Your task to perform on an android device: Search for Italian restaurants on Maps Image 0: 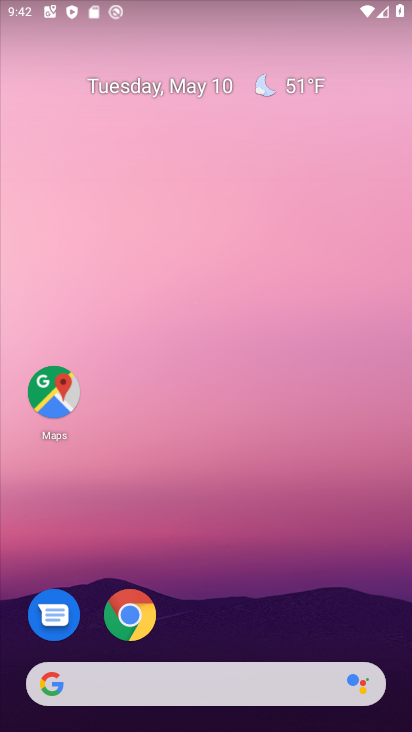
Step 0: click (43, 381)
Your task to perform on an android device: Search for Italian restaurants on Maps Image 1: 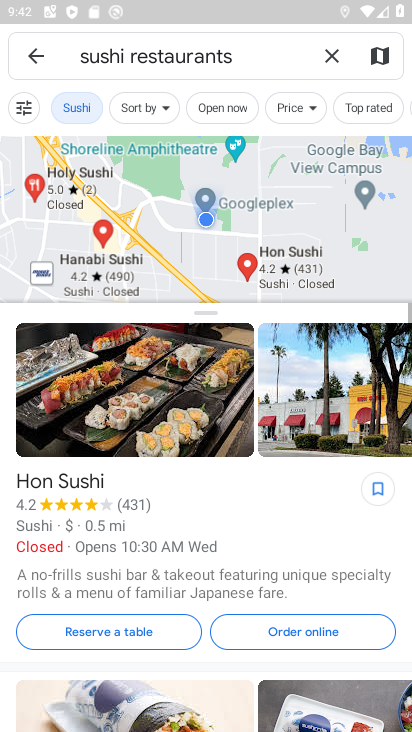
Step 1: click (322, 51)
Your task to perform on an android device: Search for Italian restaurants on Maps Image 2: 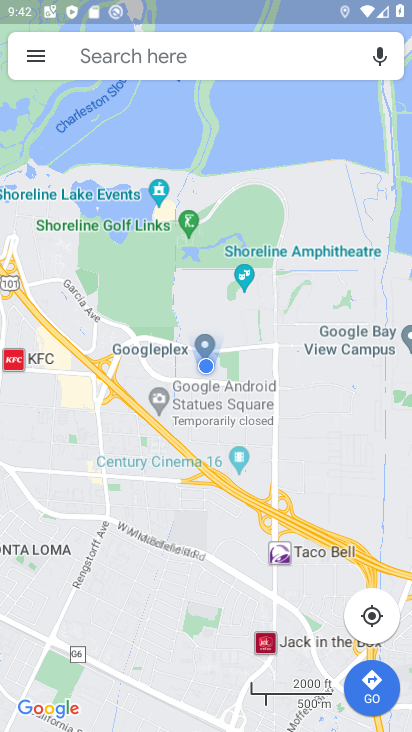
Step 2: click (171, 66)
Your task to perform on an android device: Search for Italian restaurants on Maps Image 3: 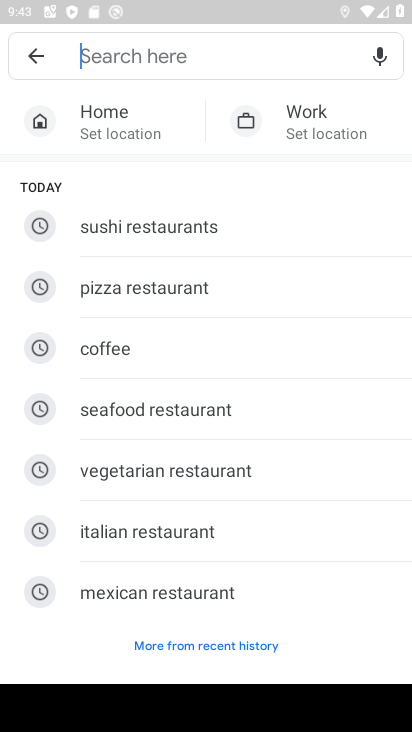
Step 3: type "Italian restaurants"
Your task to perform on an android device: Search for Italian restaurants on Maps Image 4: 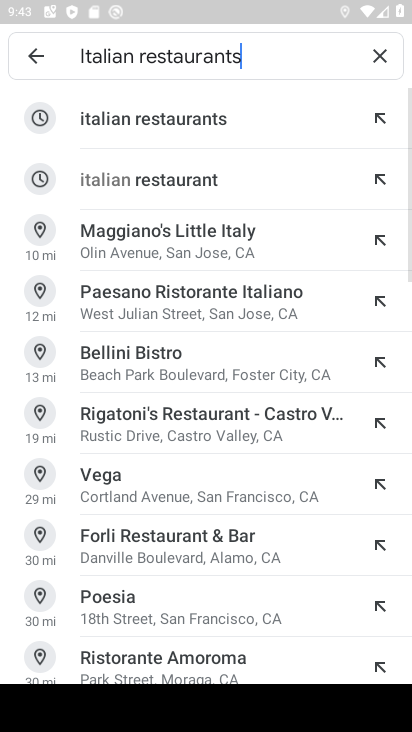
Step 4: click (149, 118)
Your task to perform on an android device: Search for Italian restaurants on Maps Image 5: 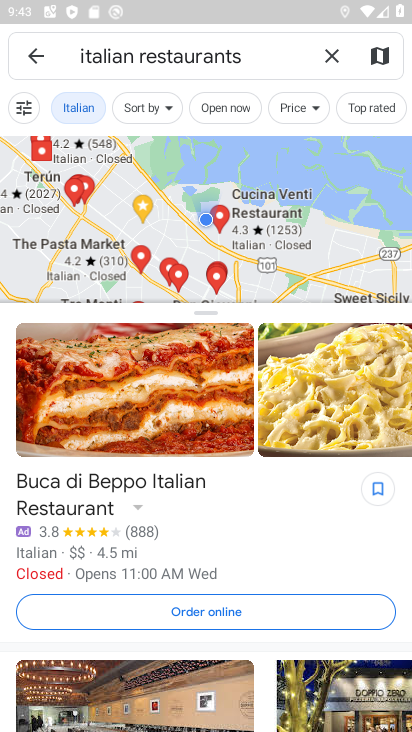
Step 5: task complete